Your task to perform on an android device: check storage Image 0: 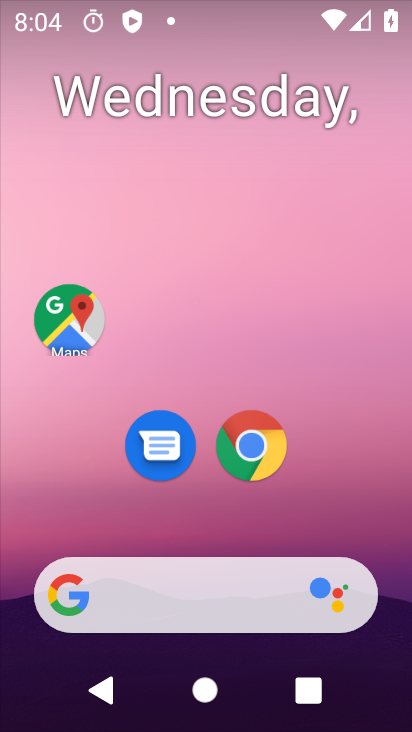
Step 0: drag from (317, 420) to (296, 87)
Your task to perform on an android device: check storage Image 1: 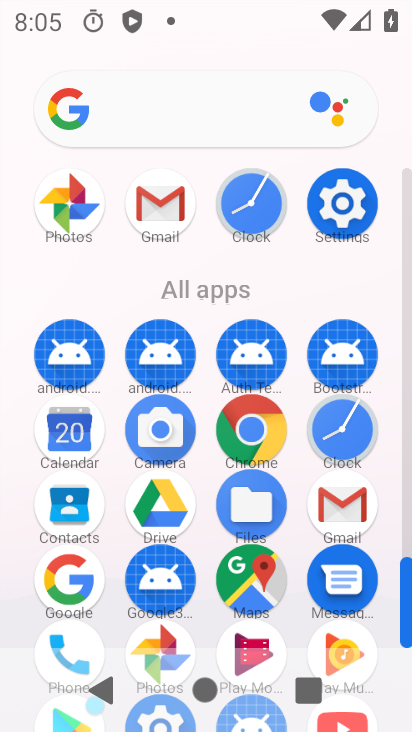
Step 1: click (339, 198)
Your task to perform on an android device: check storage Image 2: 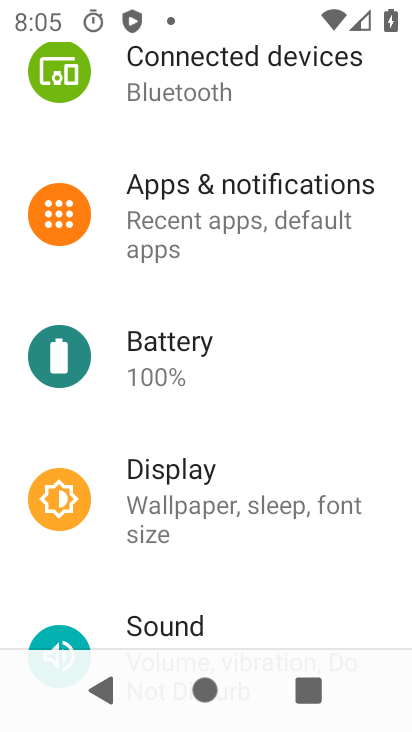
Step 2: drag from (267, 316) to (320, 551)
Your task to perform on an android device: check storage Image 3: 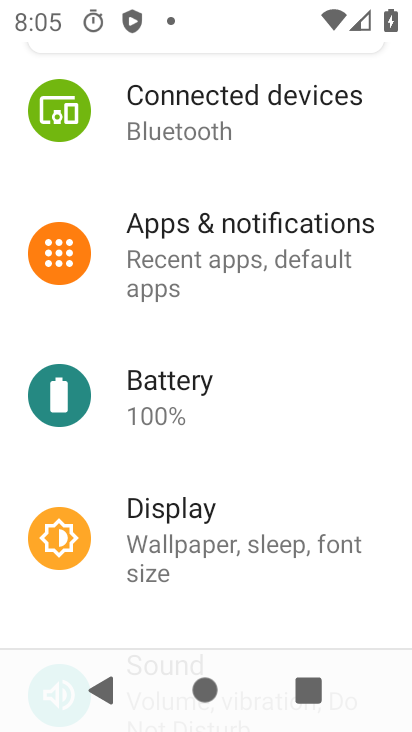
Step 3: drag from (227, 297) to (225, 639)
Your task to perform on an android device: check storage Image 4: 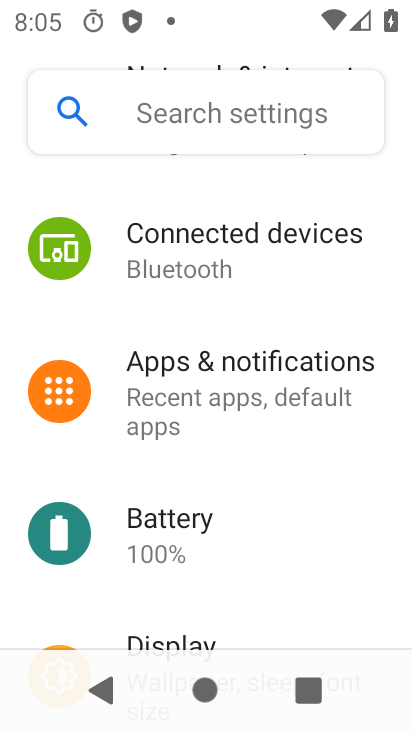
Step 4: drag from (288, 289) to (249, 703)
Your task to perform on an android device: check storage Image 5: 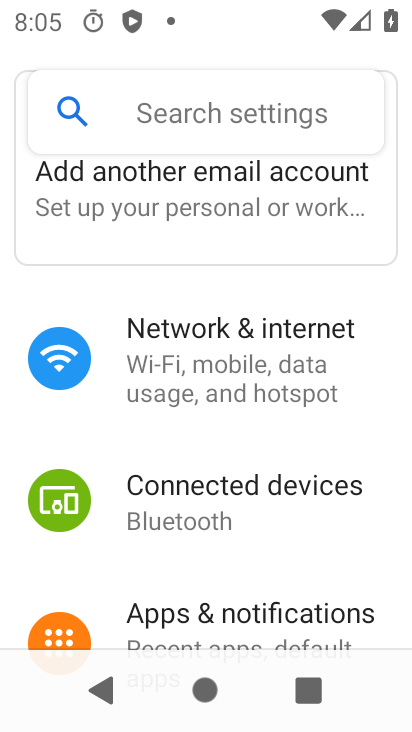
Step 5: drag from (236, 616) to (183, 152)
Your task to perform on an android device: check storage Image 6: 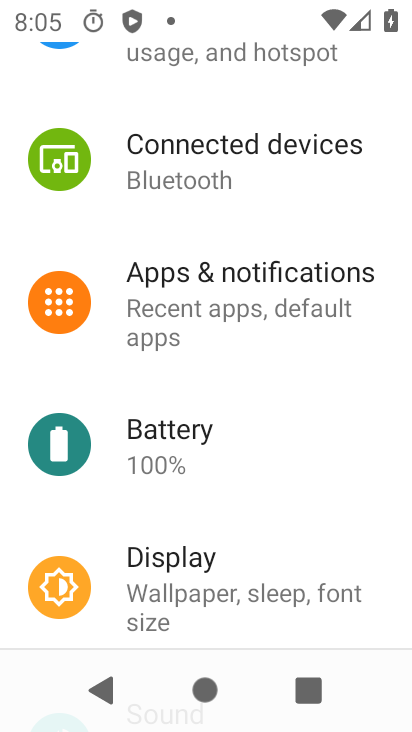
Step 6: drag from (250, 525) to (281, 89)
Your task to perform on an android device: check storage Image 7: 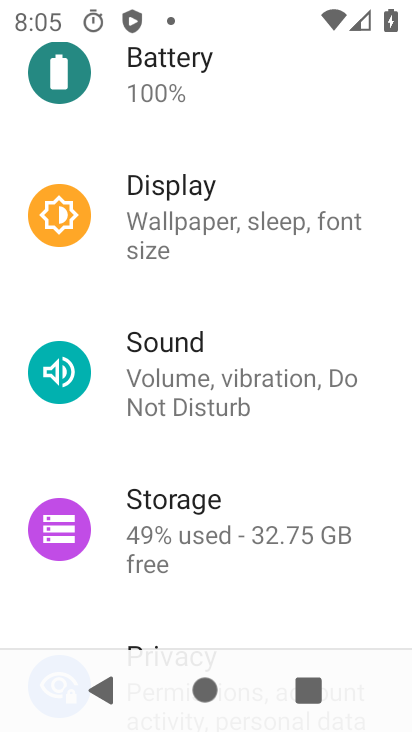
Step 7: click (197, 541)
Your task to perform on an android device: check storage Image 8: 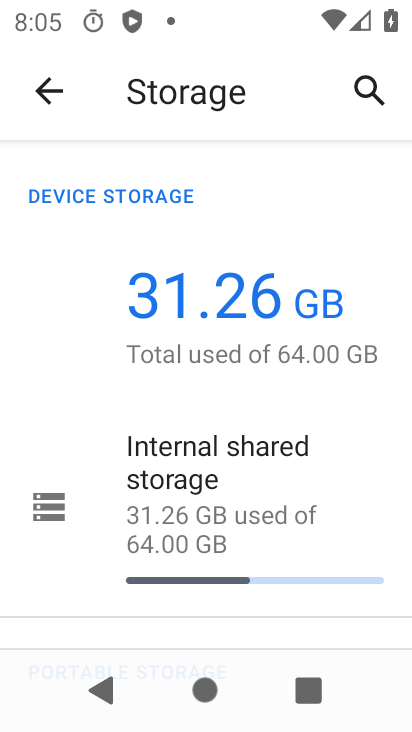
Step 8: task complete